Your task to perform on an android device: turn on improve location accuracy Image 0: 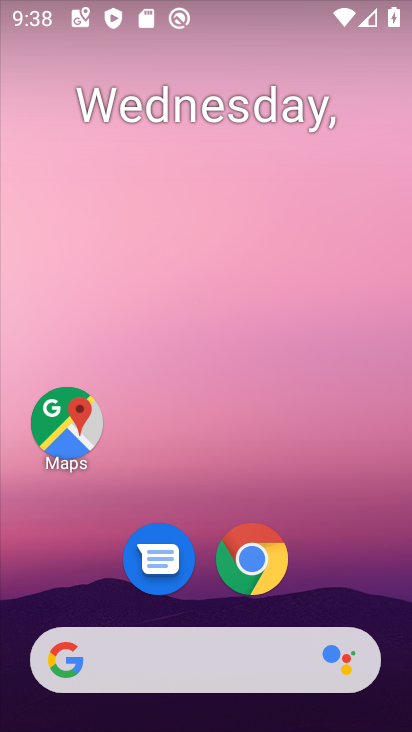
Step 0: drag from (319, 615) to (337, 74)
Your task to perform on an android device: turn on improve location accuracy Image 1: 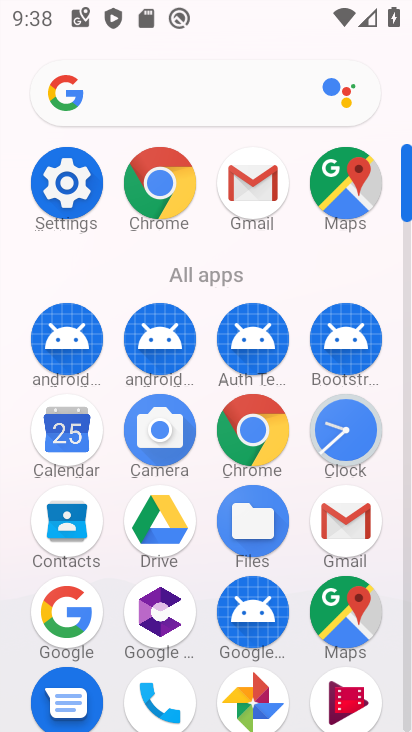
Step 1: click (75, 196)
Your task to perform on an android device: turn on improve location accuracy Image 2: 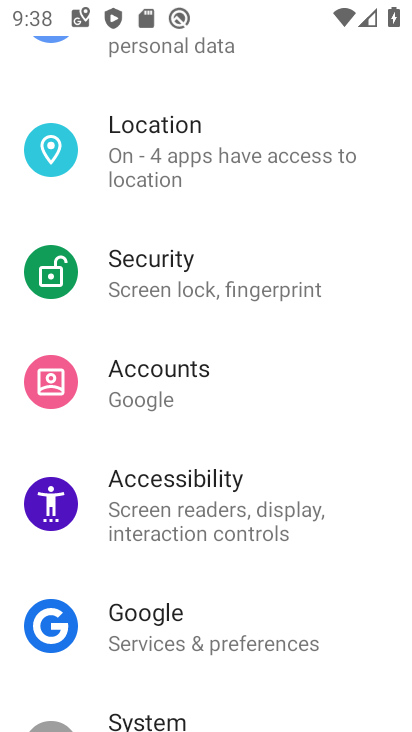
Step 2: click (138, 130)
Your task to perform on an android device: turn on improve location accuracy Image 3: 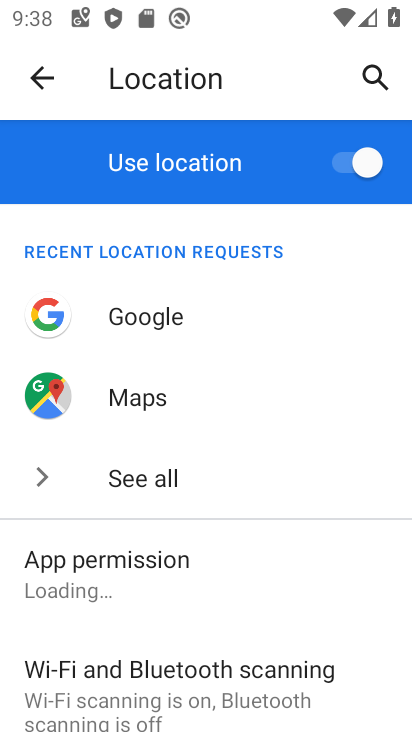
Step 3: drag from (218, 588) to (291, 4)
Your task to perform on an android device: turn on improve location accuracy Image 4: 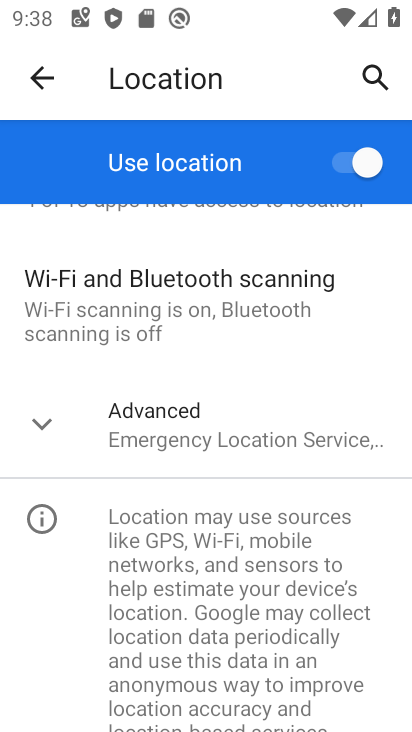
Step 4: click (157, 427)
Your task to perform on an android device: turn on improve location accuracy Image 5: 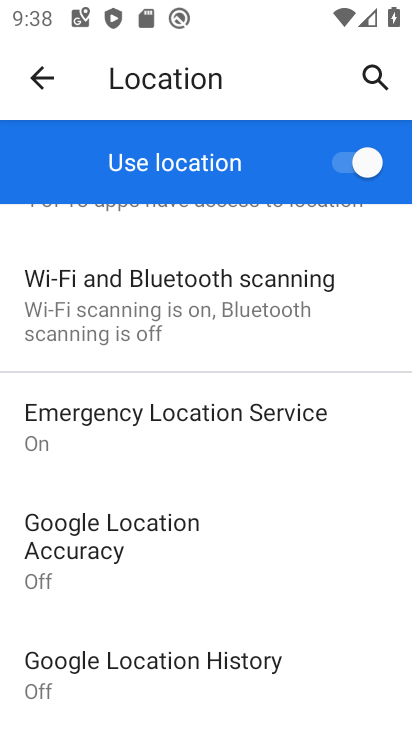
Step 5: click (127, 515)
Your task to perform on an android device: turn on improve location accuracy Image 6: 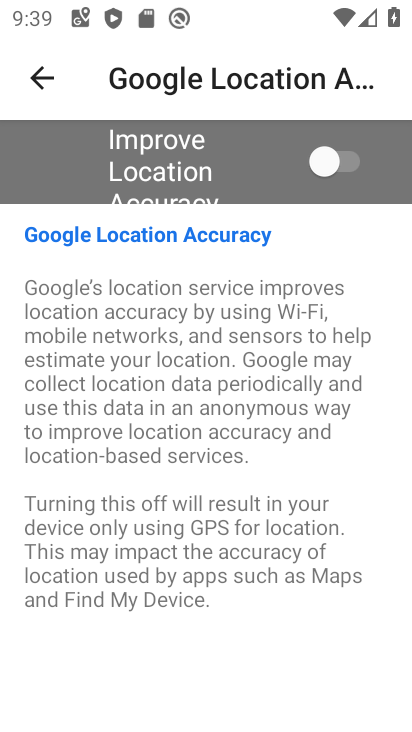
Step 6: click (327, 163)
Your task to perform on an android device: turn on improve location accuracy Image 7: 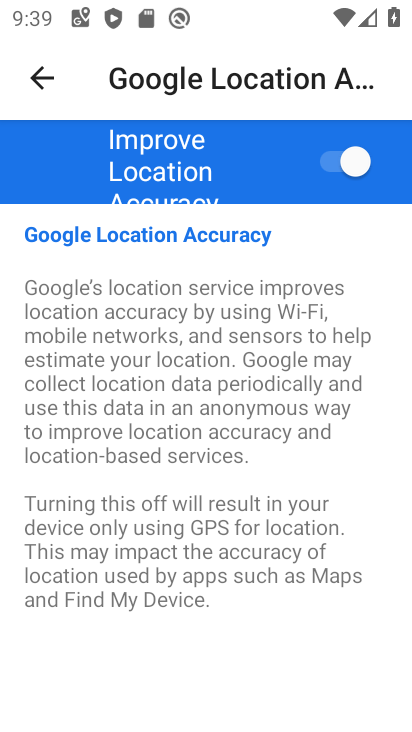
Step 7: task complete